Your task to perform on an android device: open app "Fetch Rewards" Image 0: 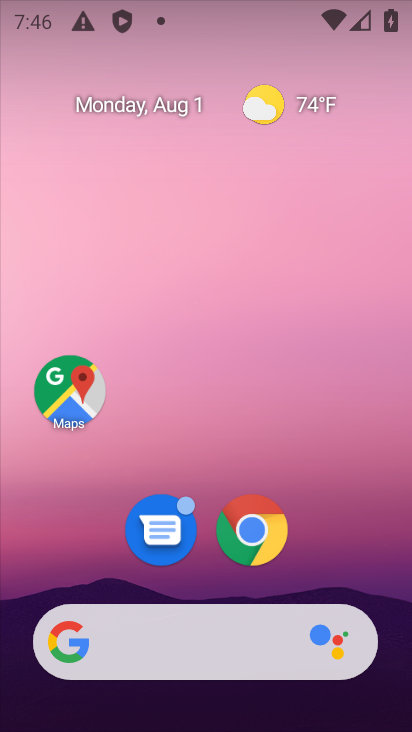
Step 0: drag from (318, 562) to (303, 32)
Your task to perform on an android device: open app "Fetch Rewards" Image 1: 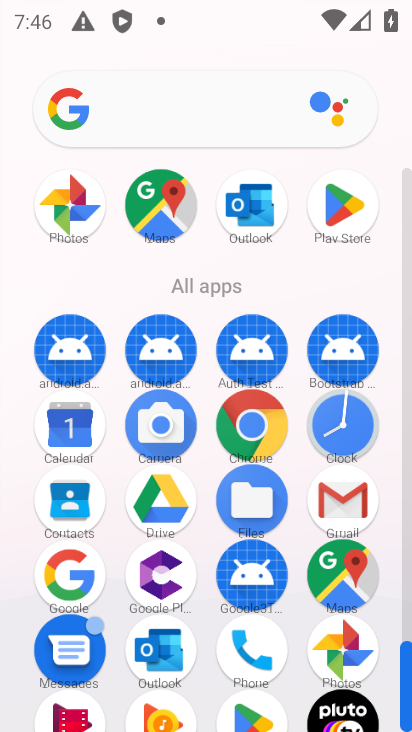
Step 1: click (327, 220)
Your task to perform on an android device: open app "Fetch Rewards" Image 2: 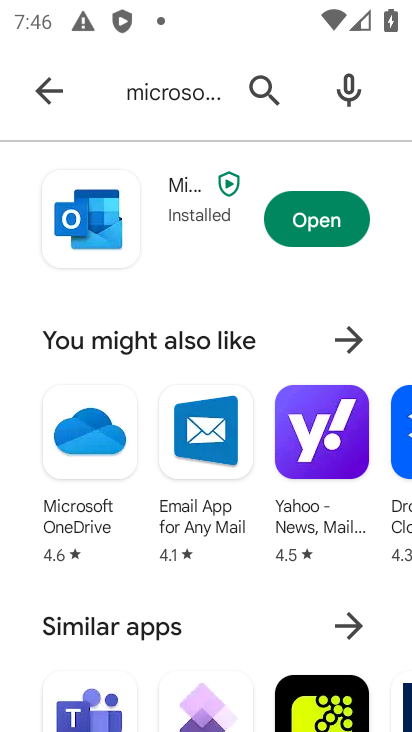
Step 2: click (28, 91)
Your task to perform on an android device: open app "Fetch Rewards" Image 3: 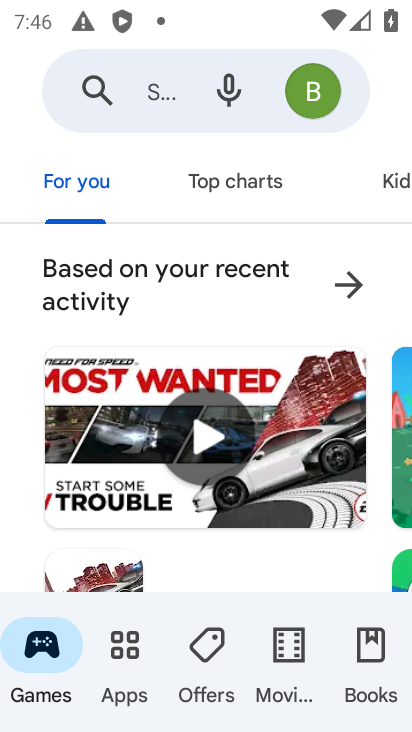
Step 3: click (141, 89)
Your task to perform on an android device: open app "Fetch Rewards" Image 4: 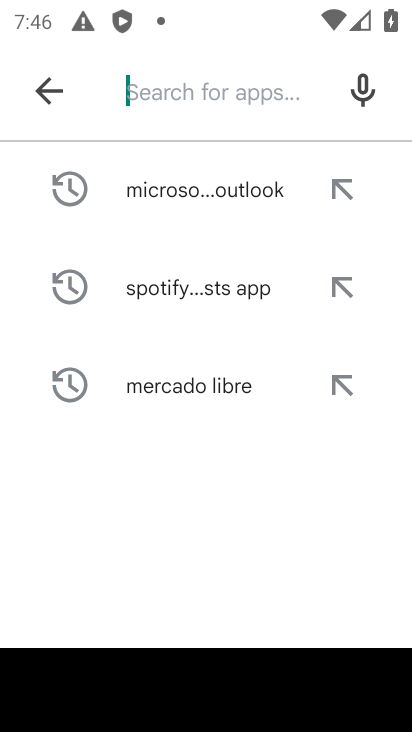
Step 4: type "Fetch Rewards"
Your task to perform on an android device: open app "Fetch Rewards" Image 5: 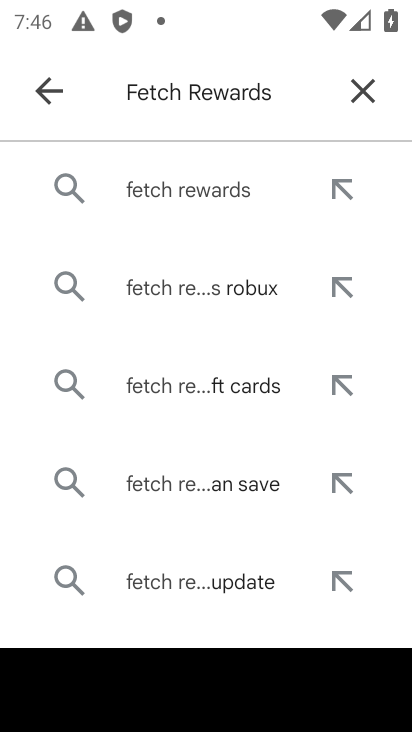
Step 5: click (205, 204)
Your task to perform on an android device: open app "Fetch Rewards" Image 6: 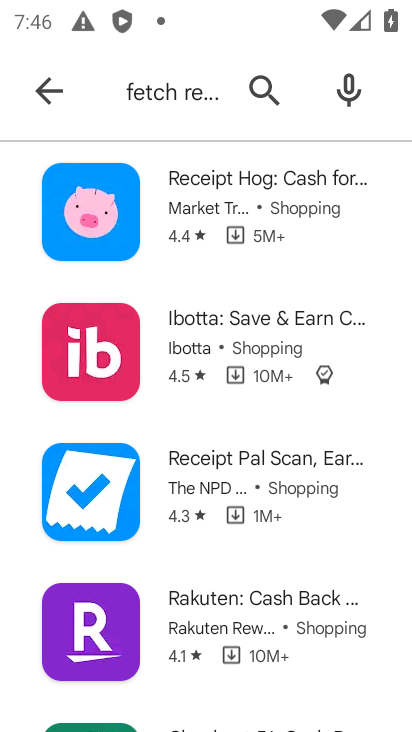
Step 6: task complete